Your task to perform on an android device: change the clock display to analog Image 0: 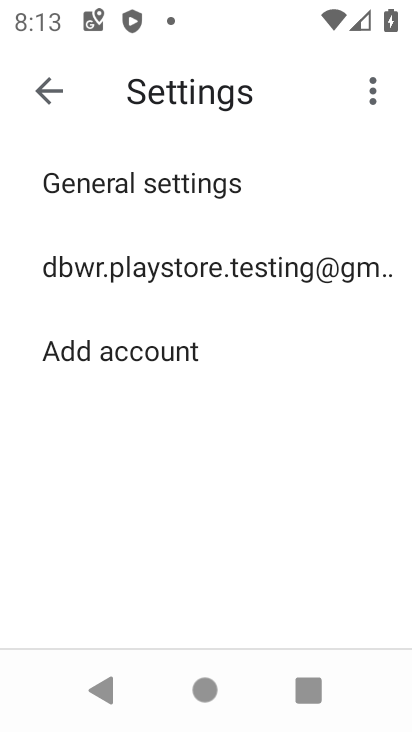
Step 0: press home button
Your task to perform on an android device: change the clock display to analog Image 1: 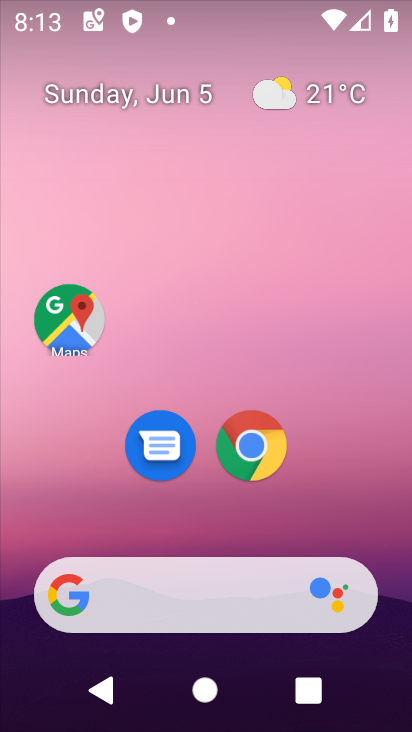
Step 1: drag from (226, 534) to (183, 195)
Your task to perform on an android device: change the clock display to analog Image 2: 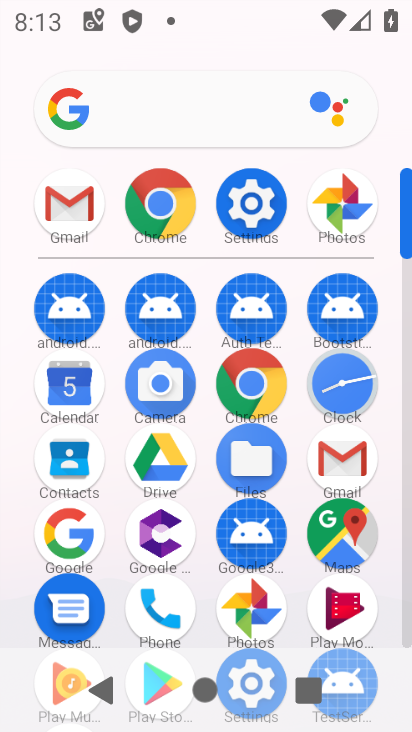
Step 2: click (346, 402)
Your task to perform on an android device: change the clock display to analog Image 3: 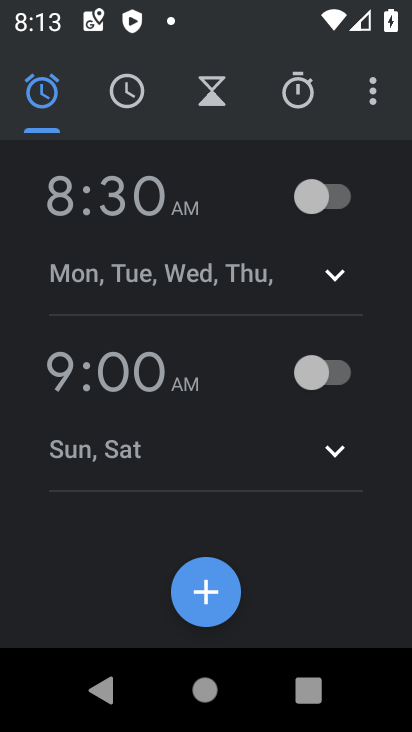
Step 3: click (373, 106)
Your task to perform on an android device: change the clock display to analog Image 4: 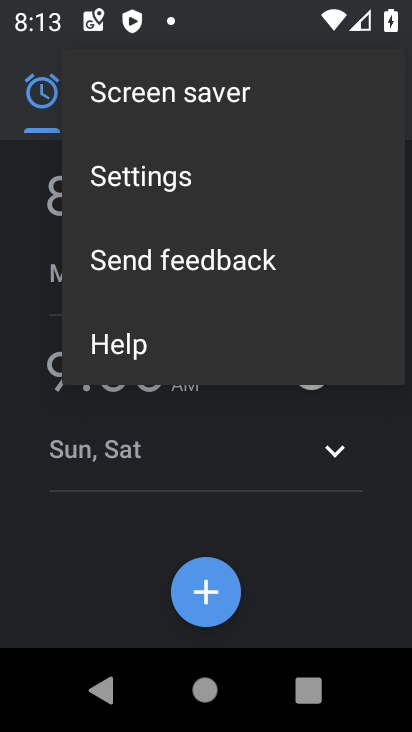
Step 4: click (143, 181)
Your task to perform on an android device: change the clock display to analog Image 5: 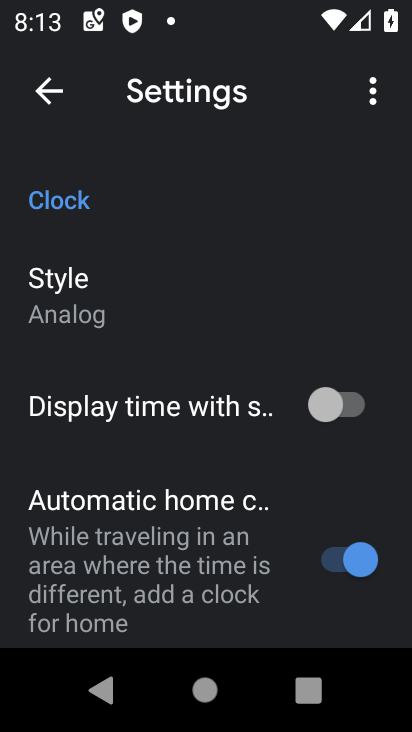
Step 5: click (61, 299)
Your task to perform on an android device: change the clock display to analog Image 6: 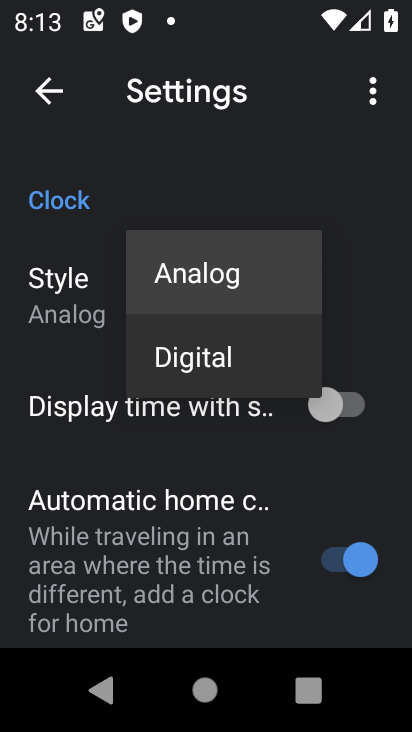
Step 6: task complete